Your task to perform on an android device: delete browsing data in the chrome app Image 0: 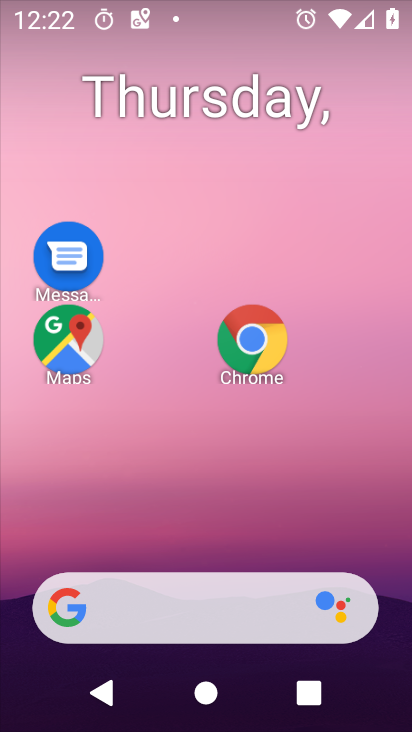
Step 0: click (182, 511)
Your task to perform on an android device: delete browsing data in the chrome app Image 1: 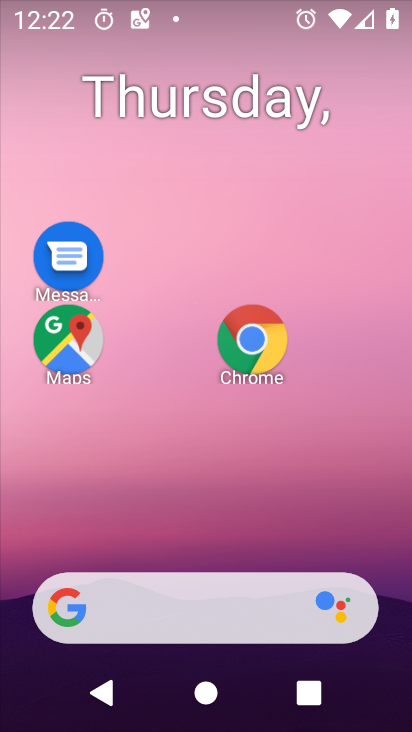
Step 1: click (258, 342)
Your task to perform on an android device: delete browsing data in the chrome app Image 2: 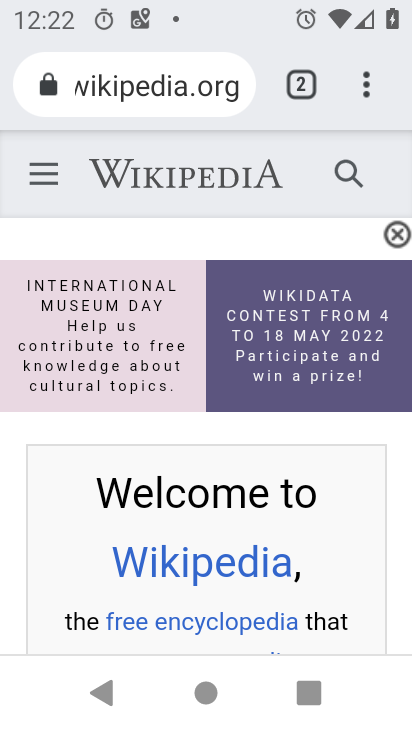
Step 2: click (363, 84)
Your task to perform on an android device: delete browsing data in the chrome app Image 3: 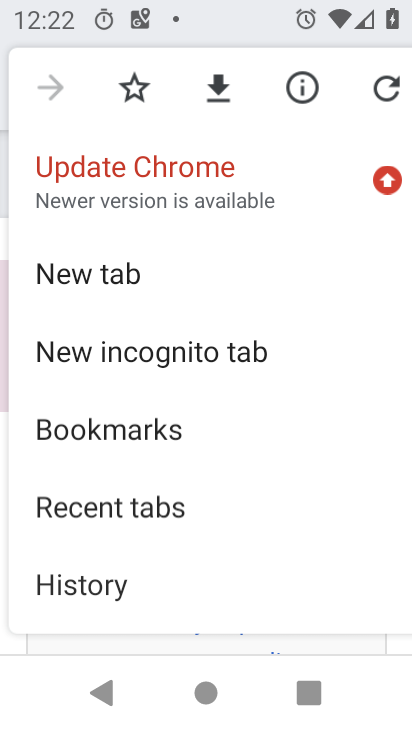
Step 3: click (363, 84)
Your task to perform on an android device: delete browsing data in the chrome app Image 4: 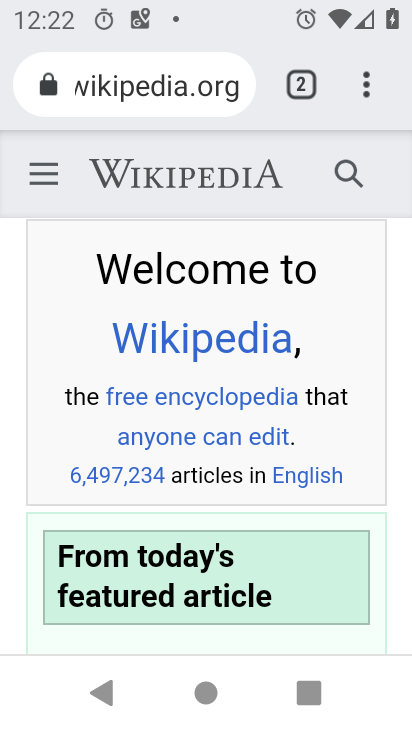
Step 4: click (363, 84)
Your task to perform on an android device: delete browsing data in the chrome app Image 5: 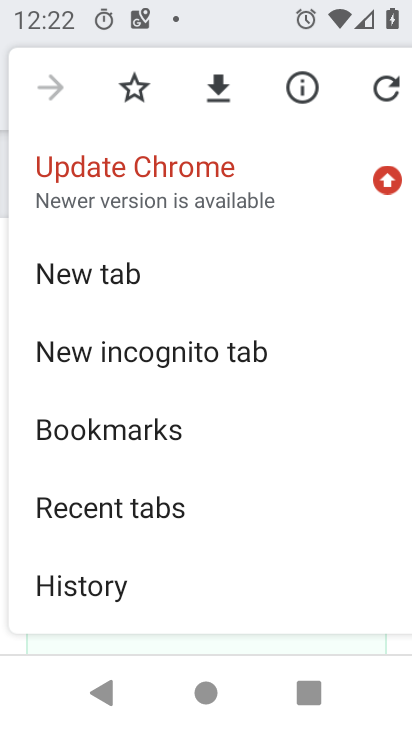
Step 5: drag from (197, 551) to (188, 312)
Your task to perform on an android device: delete browsing data in the chrome app Image 6: 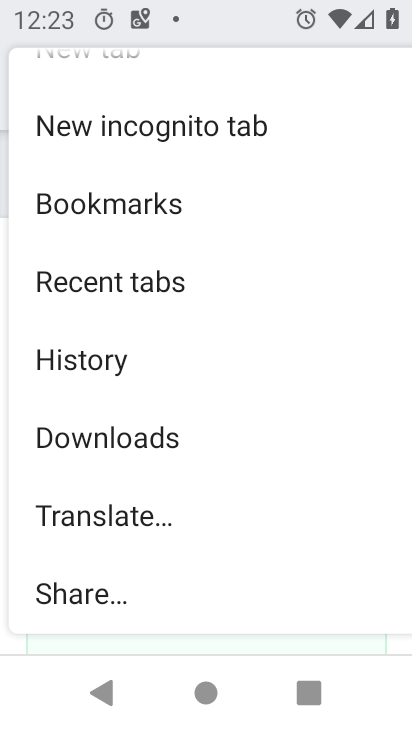
Step 6: drag from (139, 538) to (162, 183)
Your task to perform on an android device: delete browsing data in the chrome app Image 7: 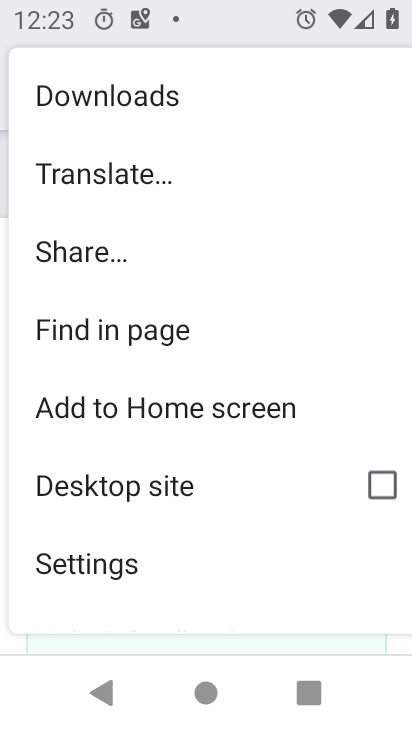
Step 7: drag from (205, 591) to (172, 385)
Your task to perform on an android device: delete browsing data in the chrome app Image 8: 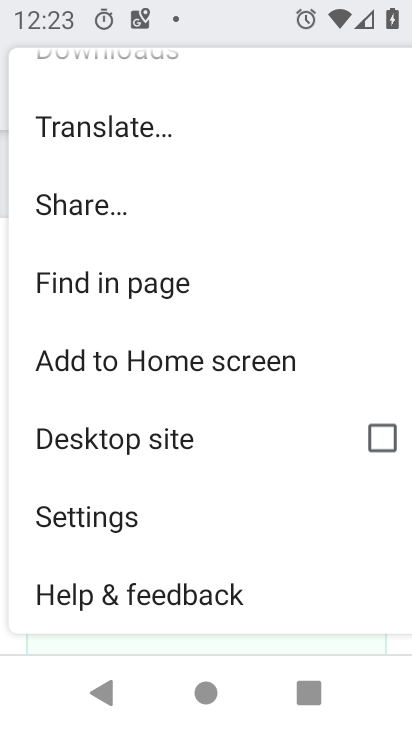
Step 8: click (153, 513)
Your task to perform on an android device: delete browsing data in the chrome app Image 9: 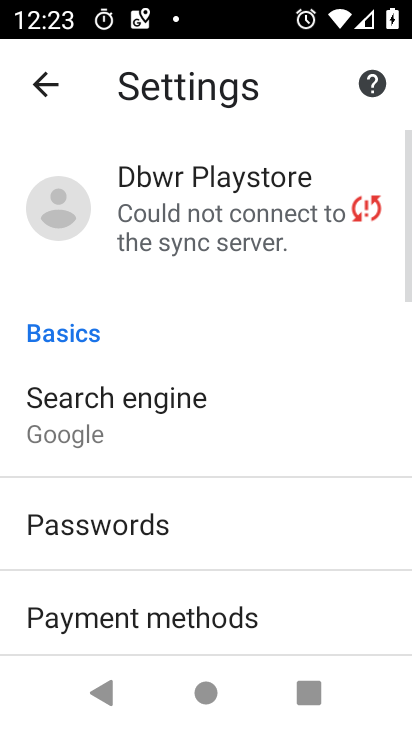
Step 9: drag from (221, 589) to (239, 65)
Your task to perform on an android device: delete browsing data in the chrome app Image 10: 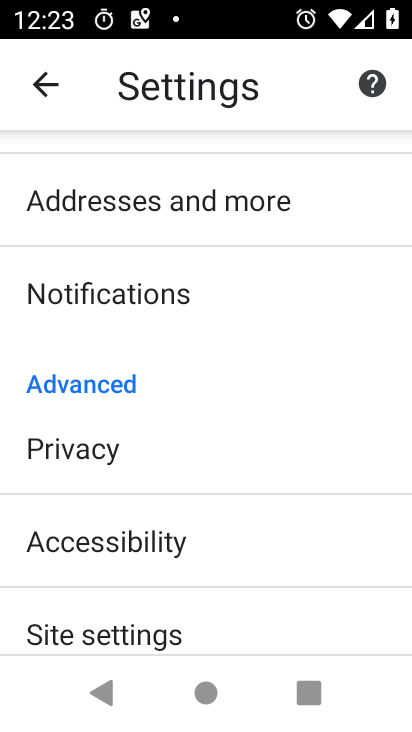
Step 10: click (107, 439)
Your task to perform on an android device: delete browsing data in the chrome app Image 11: 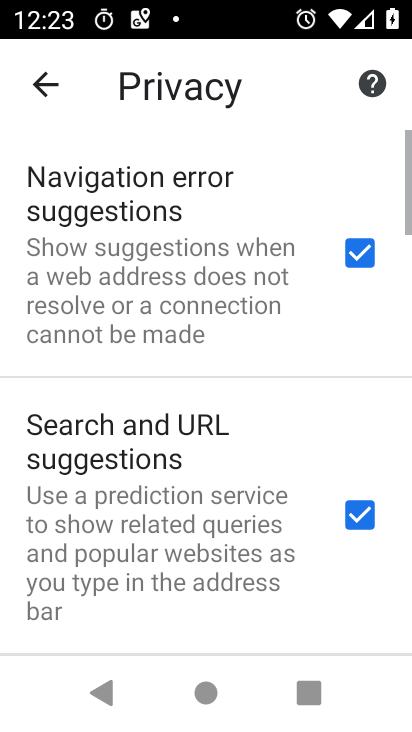
Step 11: drag from (277, 607) to (283, 44)
Your task to perform on an android device: delete browsing data in the chrome app Image 12: 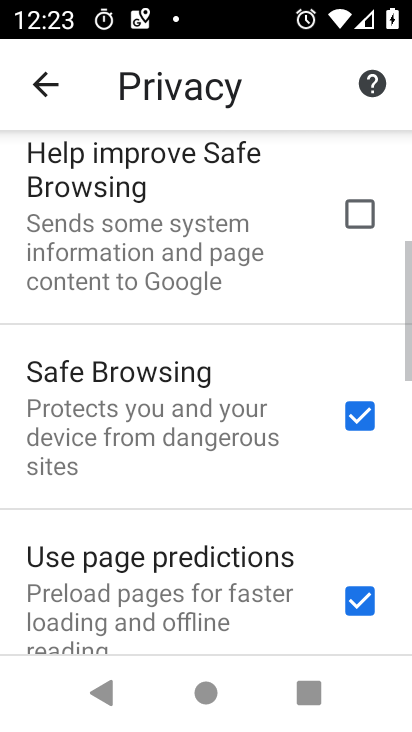
Step 12: drag from (271, 566) to (250, 67)
Your task to perform on an android device: delete browsing data in the chrome app Image 13: 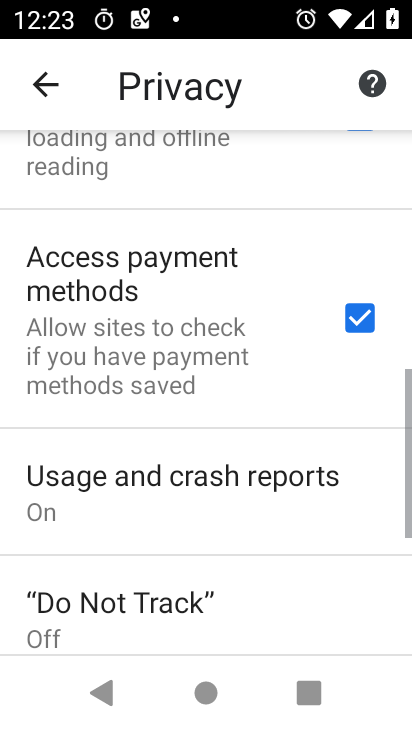
Step 13: drag from (255, 643) to (293, 137)
Your task to perform on an android device: delete browsing data in the chrome app Image 14: 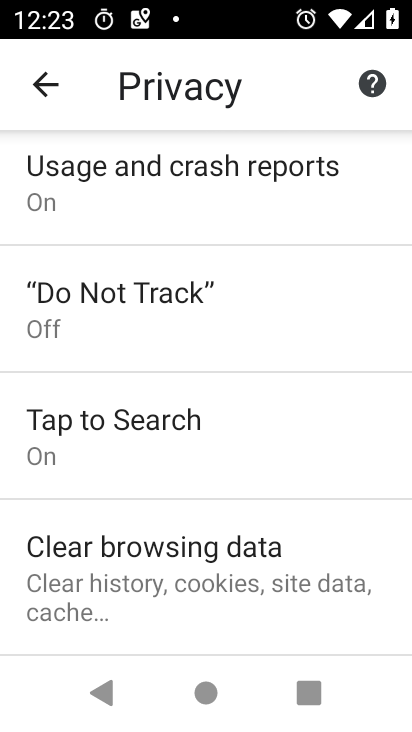
Step 14: click (205, 557)
Your task to perform on an android device: delete browsing data in the chrome app Image 15: 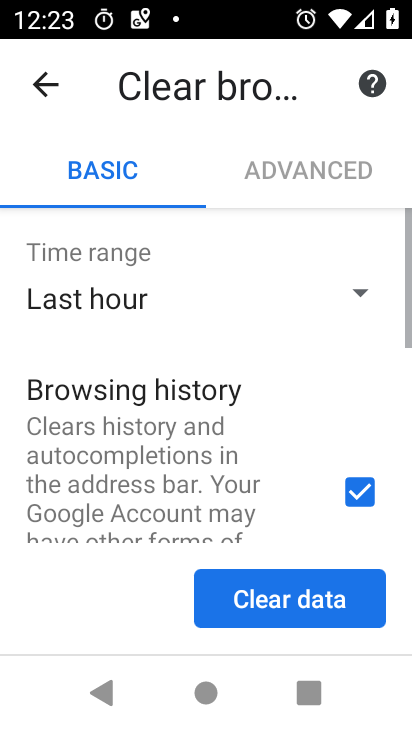
Step 15: drag from (292, 466) to (287, 261)
Your task to perform on an android device: delete browsing data in the chrome app Image 16: 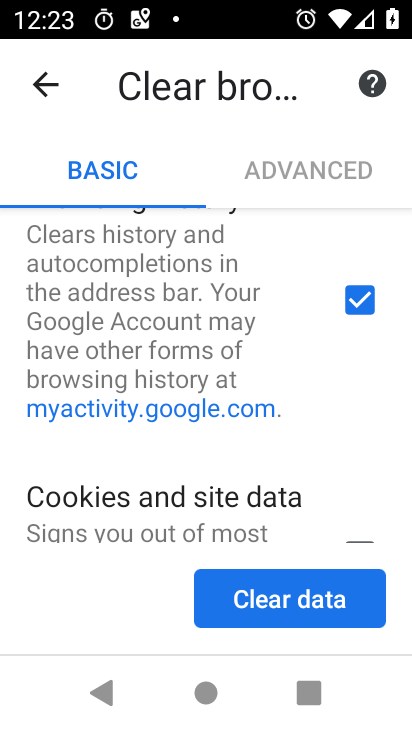
Step 16: drag from (342, 479) to (336, 241)
Your task to perform on an android device: delete browsing data in the chrome app Image 17: 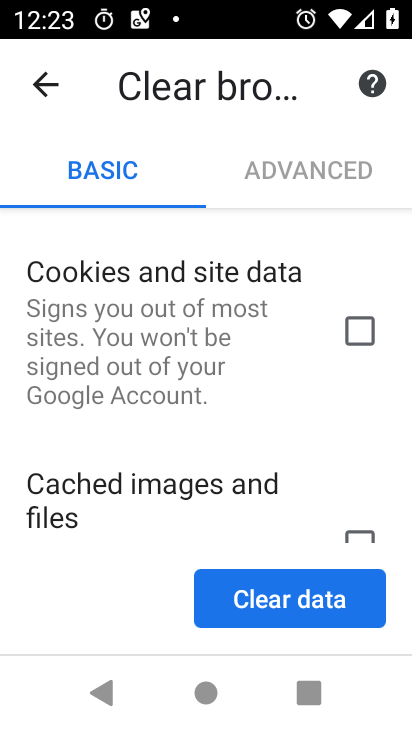
Step 17: click (268, 589)
Your task to perform on an android device: delete browsing data in the chrome app Image 18: 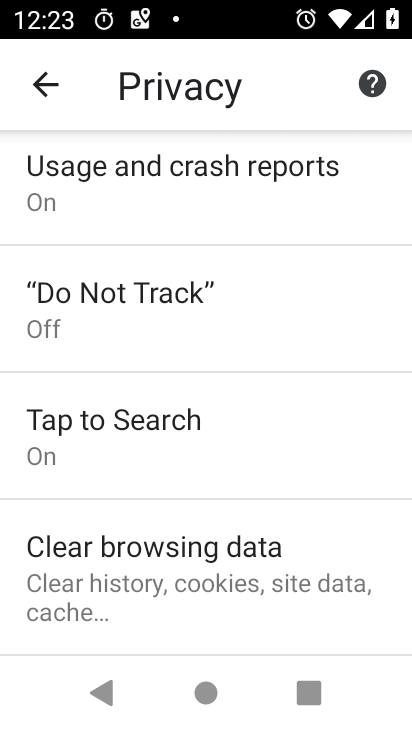
Step 18: task complete